Your task to perform on an android device: Open settings Image 0: 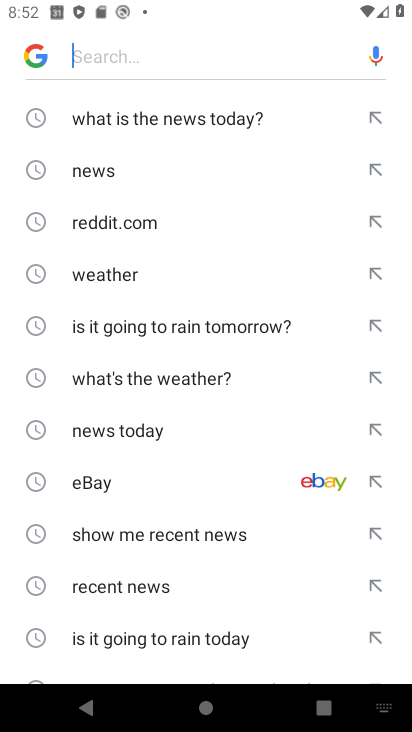
Step 0: press home button
Your task to perform on an android device: Open settings Image 1: 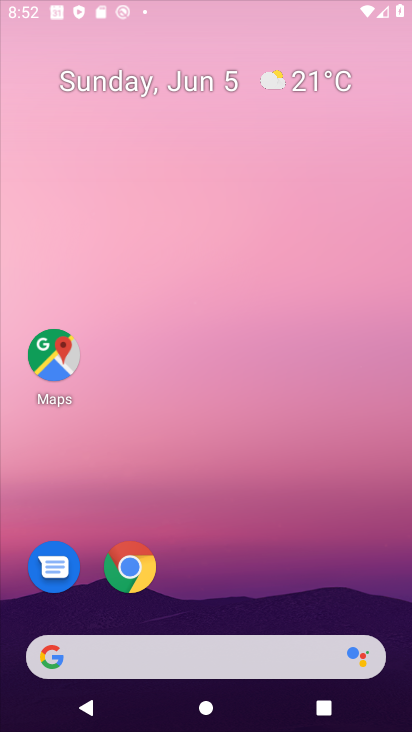
Step 1: drag from (161, 641) to (203, 314)
Your task to perform on an android device: Open settings Image 2: 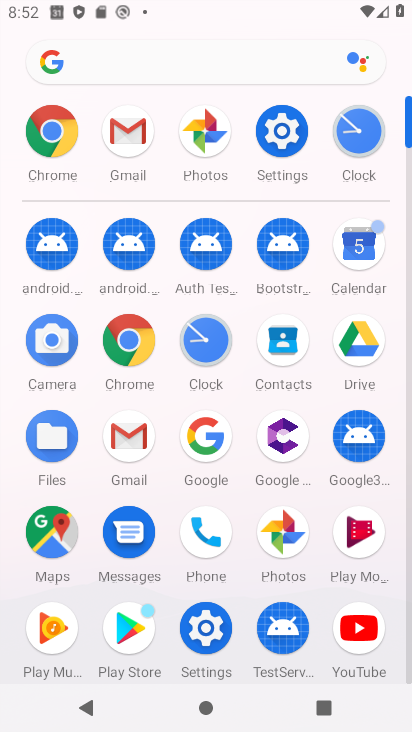
Step 2: click (265, 142)
Your task to perform on an android device: Open settings Image 3: 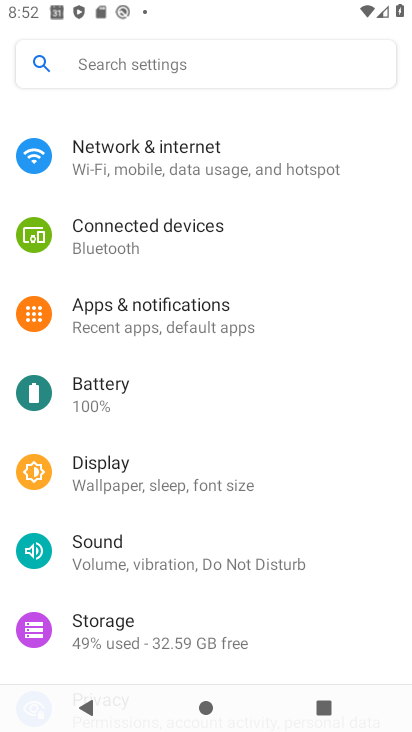
Step 3: task complete